Your task to perform on an android device: What's the weather going to be this weekend? Image 0: 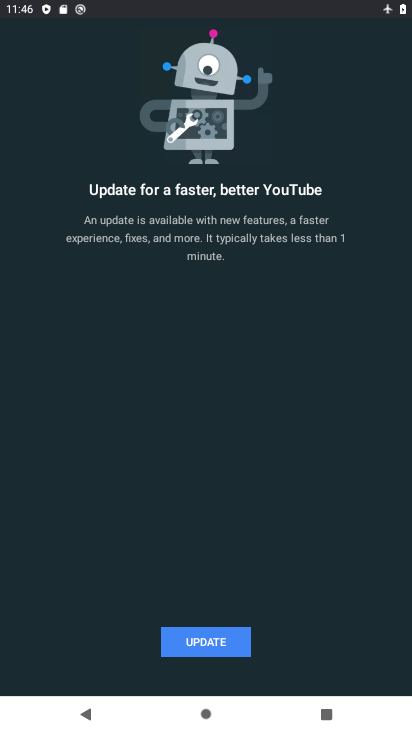
Step 0: press home button
Your task to perform on an android device: What's the weather going to be this weekend? Image 1: 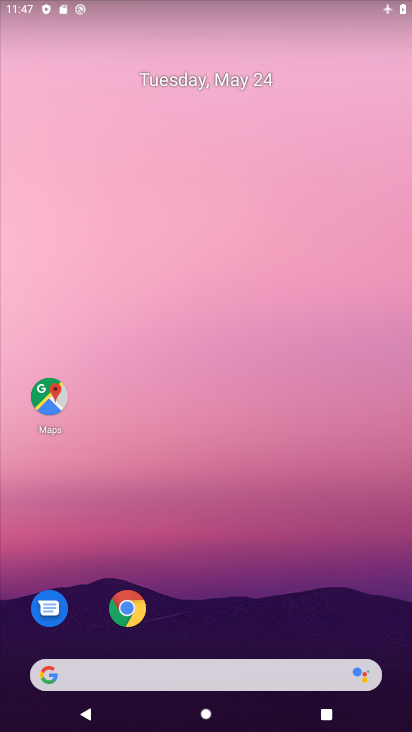
Step 1: drag from (298, 627) to (302, 37)
Your task to perform on an android device: What's the weather going to be this weekend? Image 2: 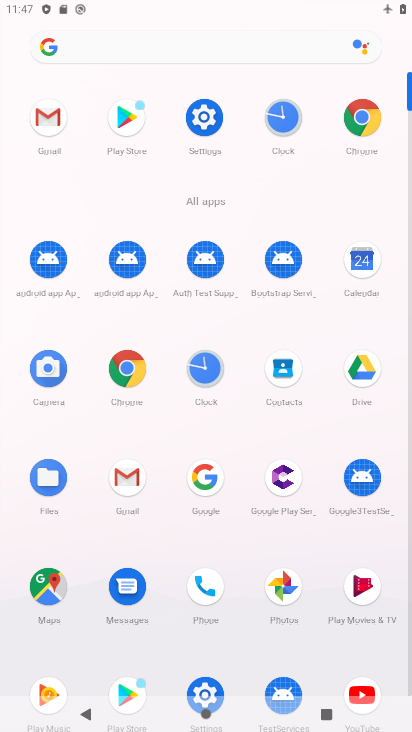
Step 2: click (374, 270)
Your task to perform on an android device: What's the weather going to be this weekend? Image 3: 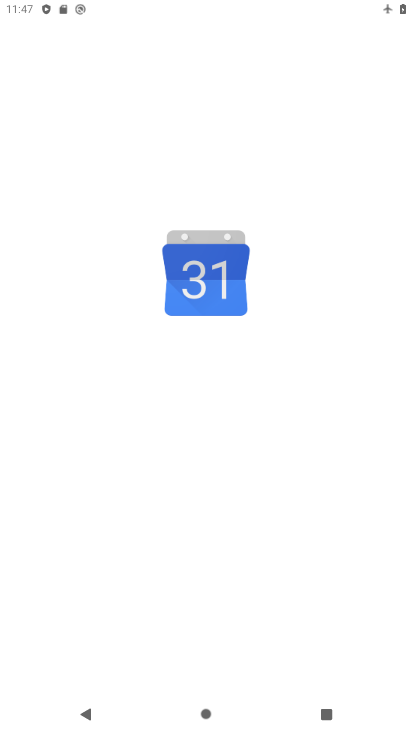
Step 3: task complete